Your task to perform on an android device: allow cookies in the chrome app Image 0: 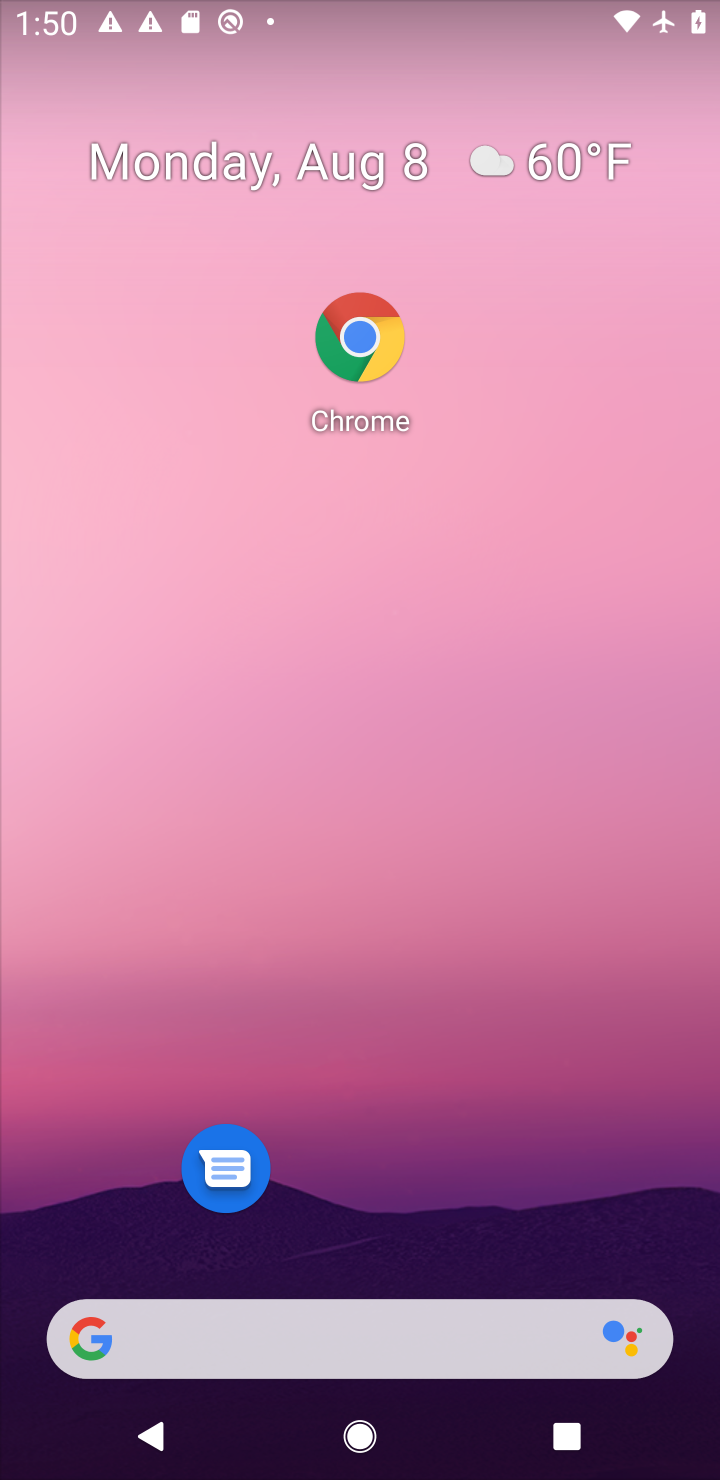
Step 0: click (374, 382)
Your task to perform on an android device: allow cookies in the chrome app Image 1: 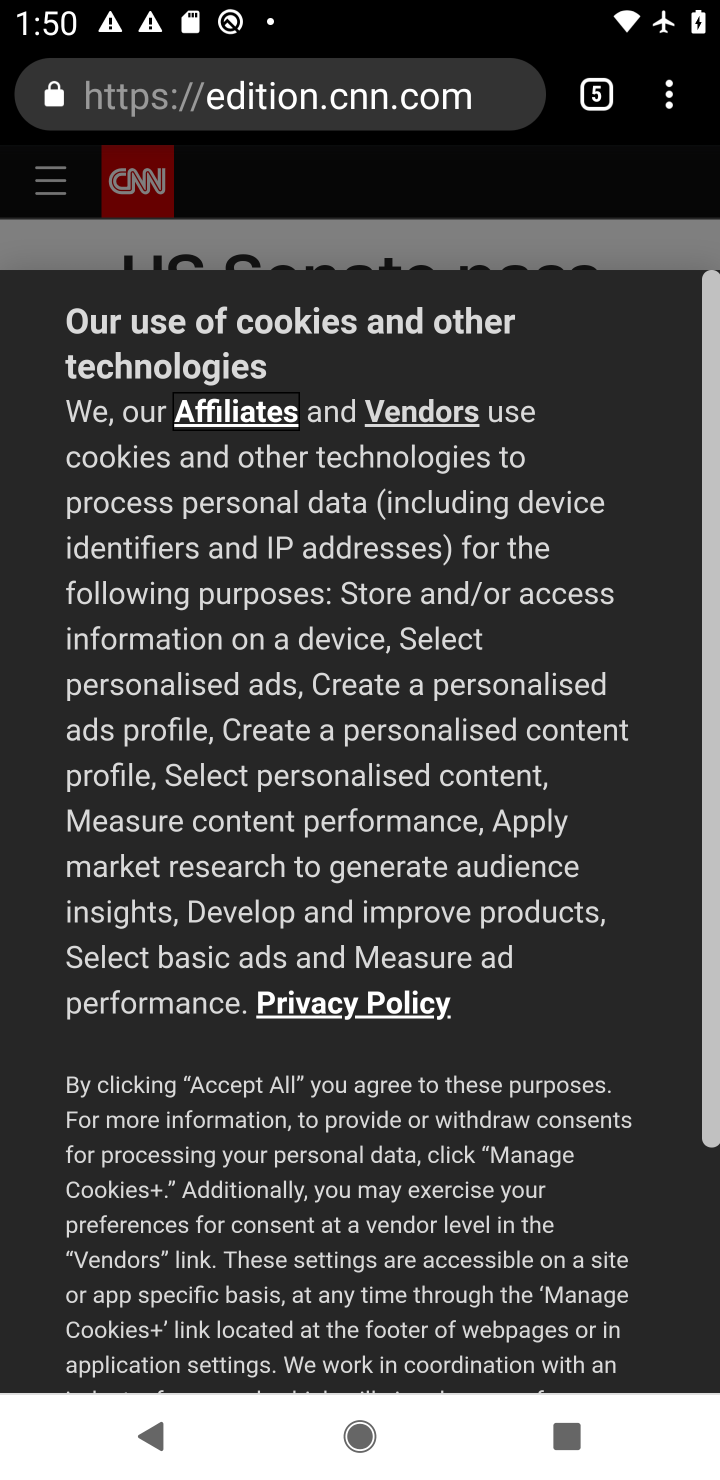
Step 1: task complete